Your task to perform on an android device: What's on my calendar tomorrow? Image 0: 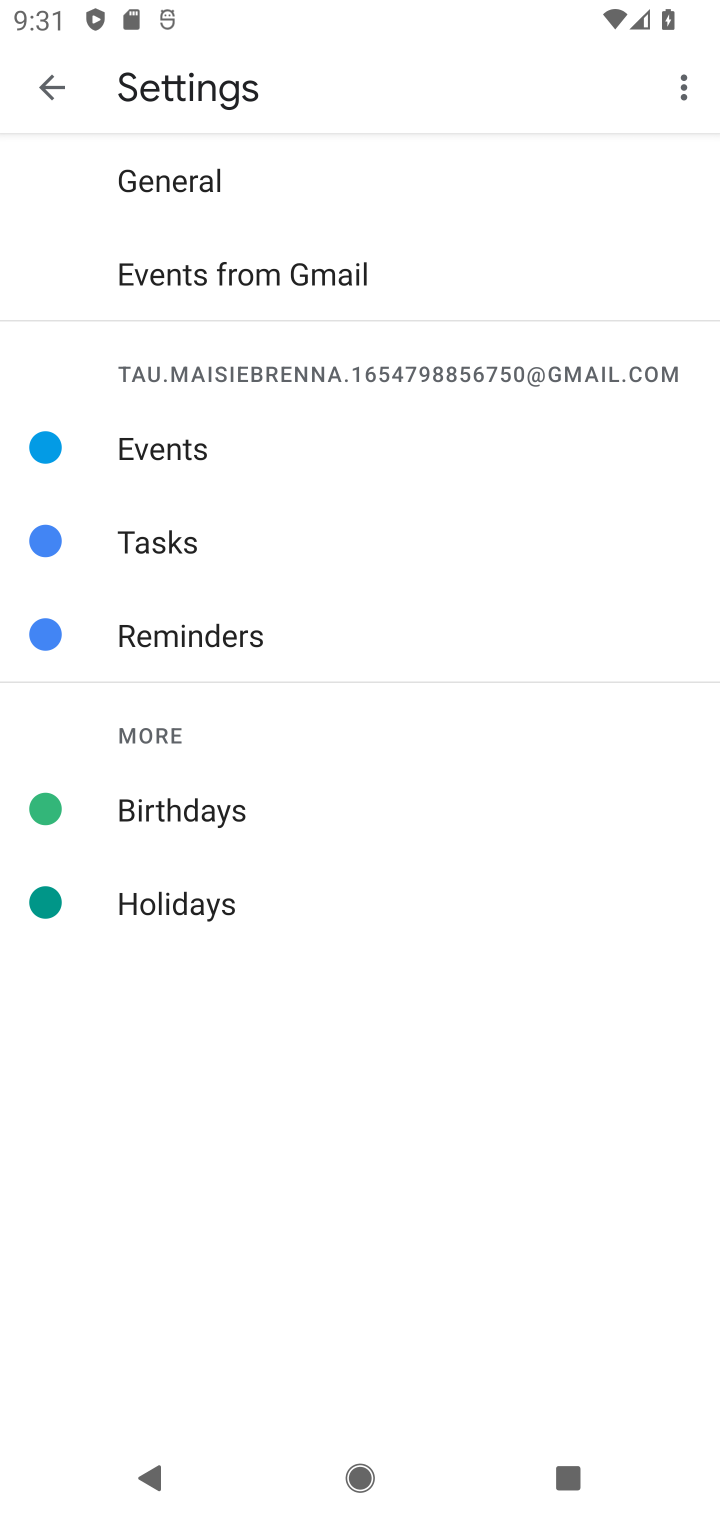
Step 0: press home button
Your task to perform on an android device: What's on my calendar tomorrow? Image 1: 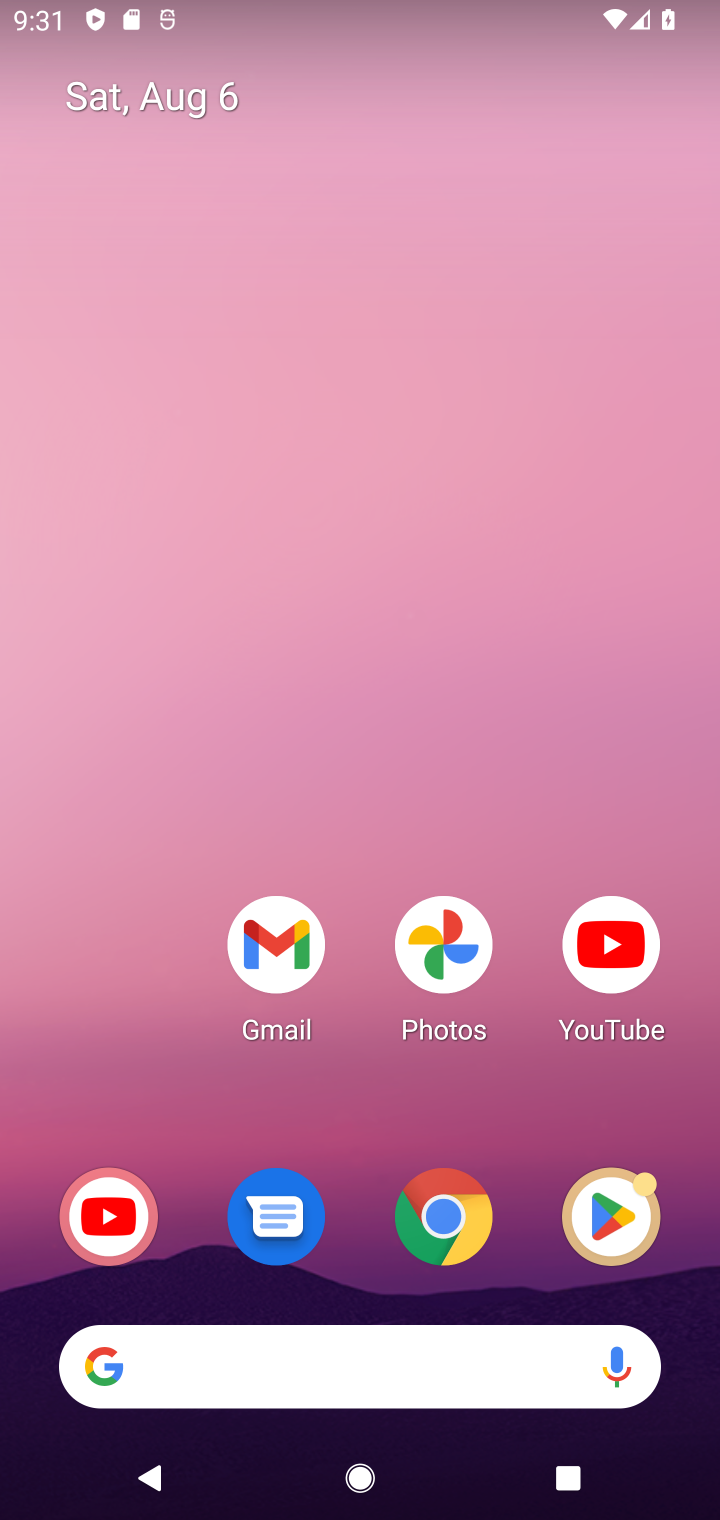
Step 1: drag from (291, 898) to (280, 424)
Your task to perform on an android device: What's on my calendar tomorrow? Image 2: 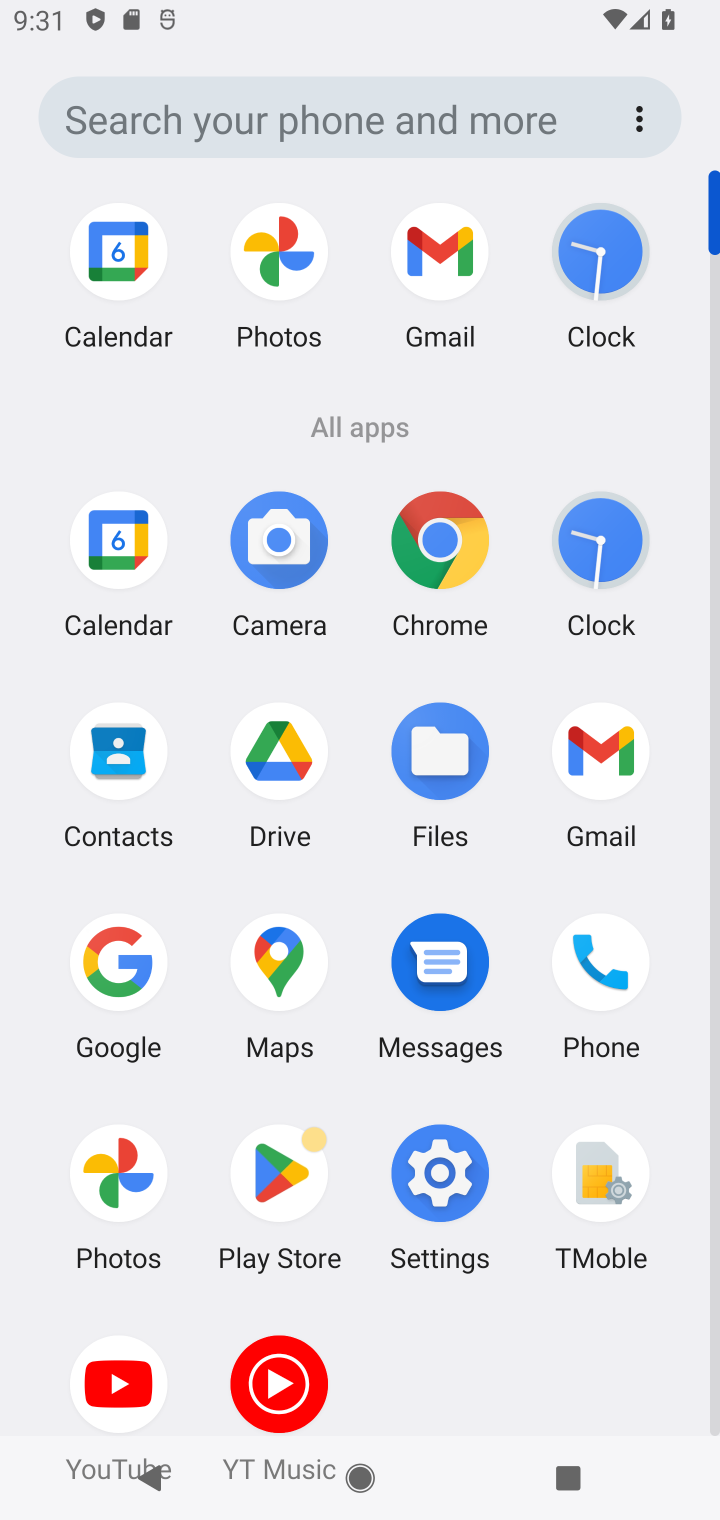
Step 2: click (93, 558)
Your task to perform on an android device: What's on my calendar tomorrow? Image 3: 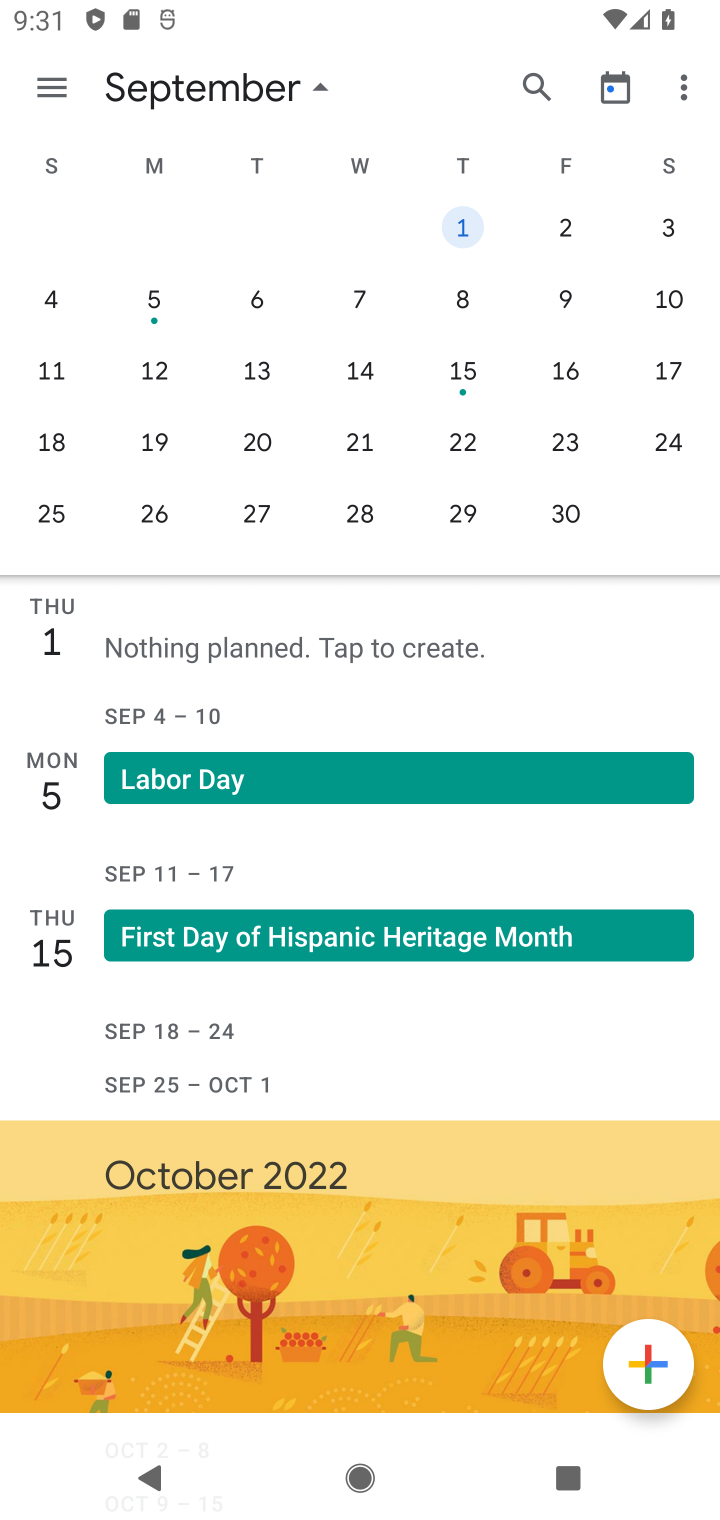
Step 3: drag from (68, 224) to (718, 388)
Your task to perform on an android device: What's on my calendar tomorrow? Image 4: 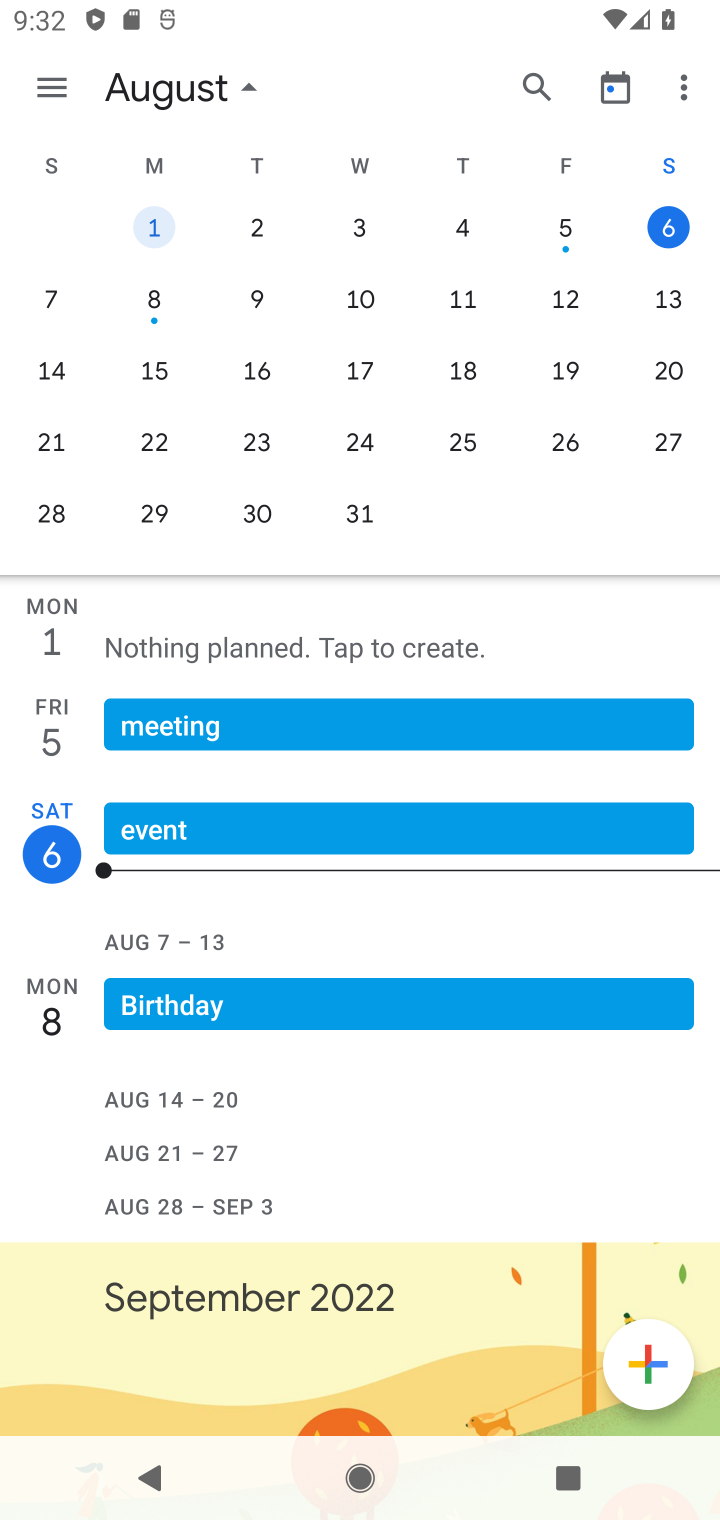
Step 4: drag from (54, 406) to (599, 405)
Your task to perform on an android device: What's on my calendar tomorrow? Image 5: 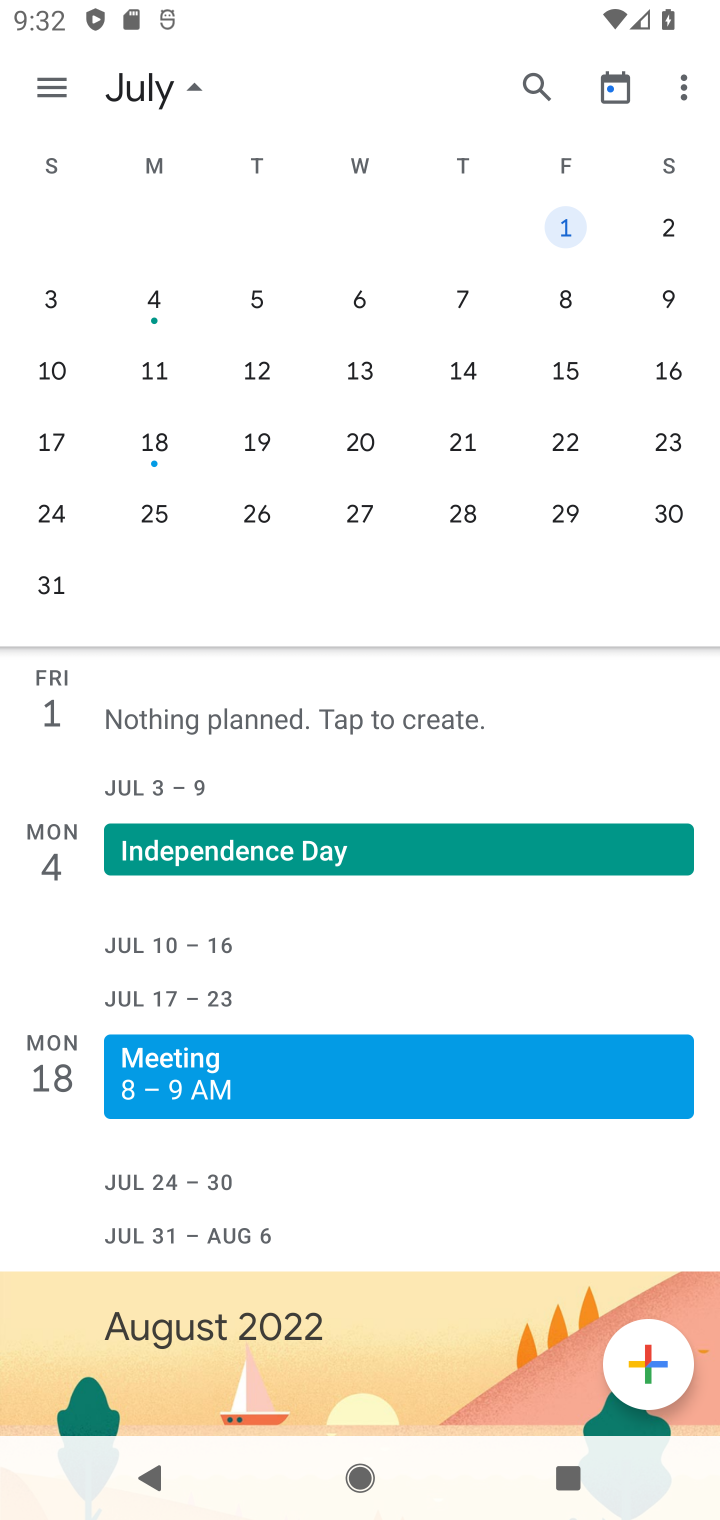
Step 5: drag from (710, 380) to (48, 436)
Your task to perform on an android device: What's on my calendar tomorrow? Image 6: 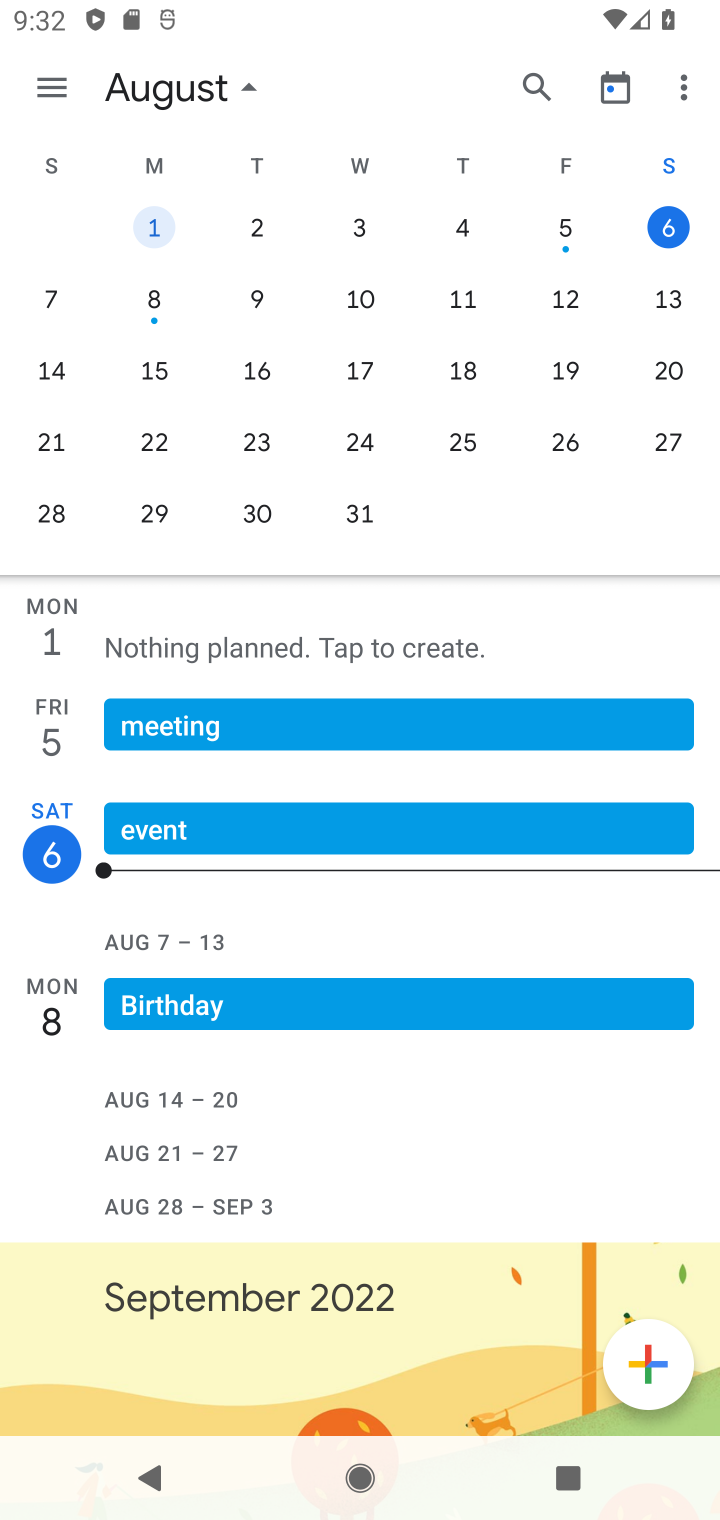
Step 6: click (39, 296)
Your task to perform on an android device: What's on my calendar tomorrow? Image 7: 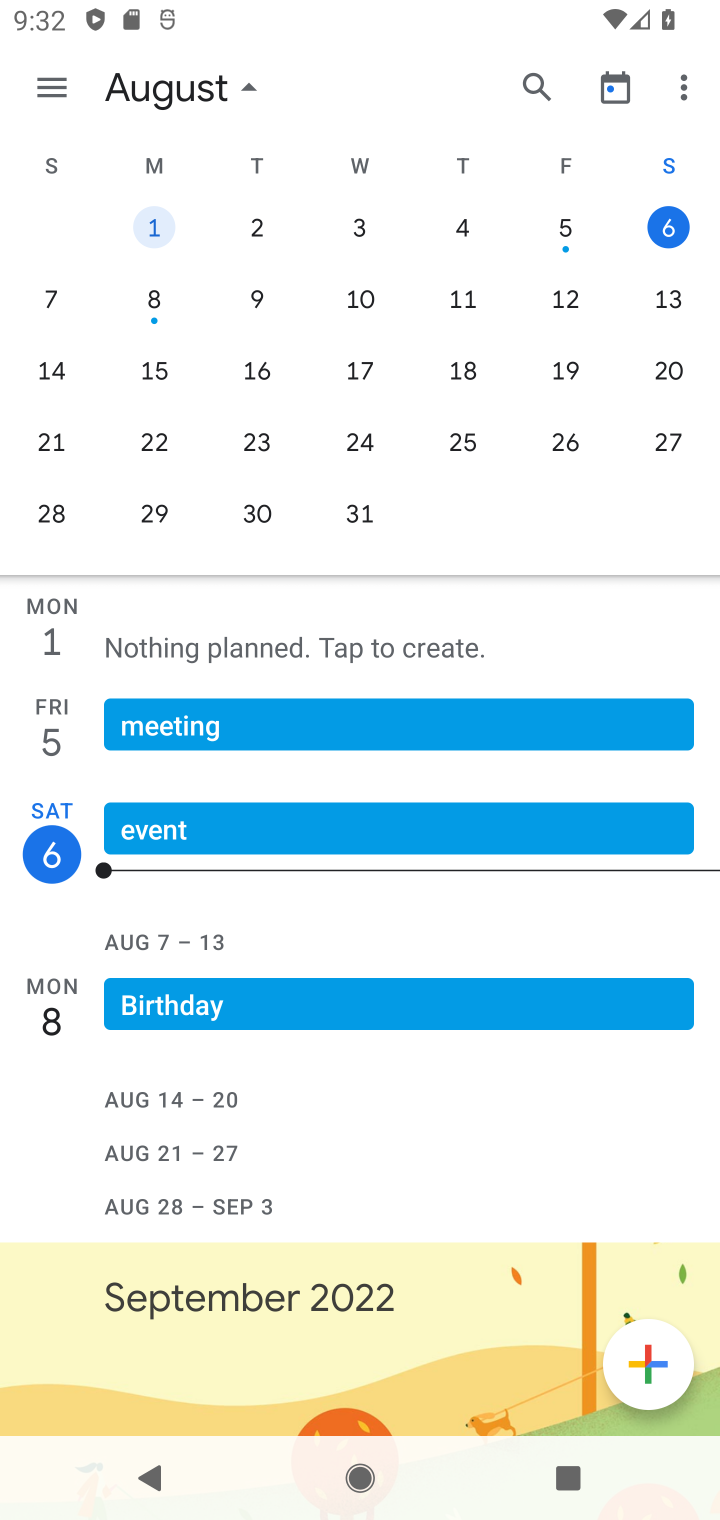
Step 7: click (54, 305)
Your task to perform on an android device: What's on my calendar tomorrow? Image 8: 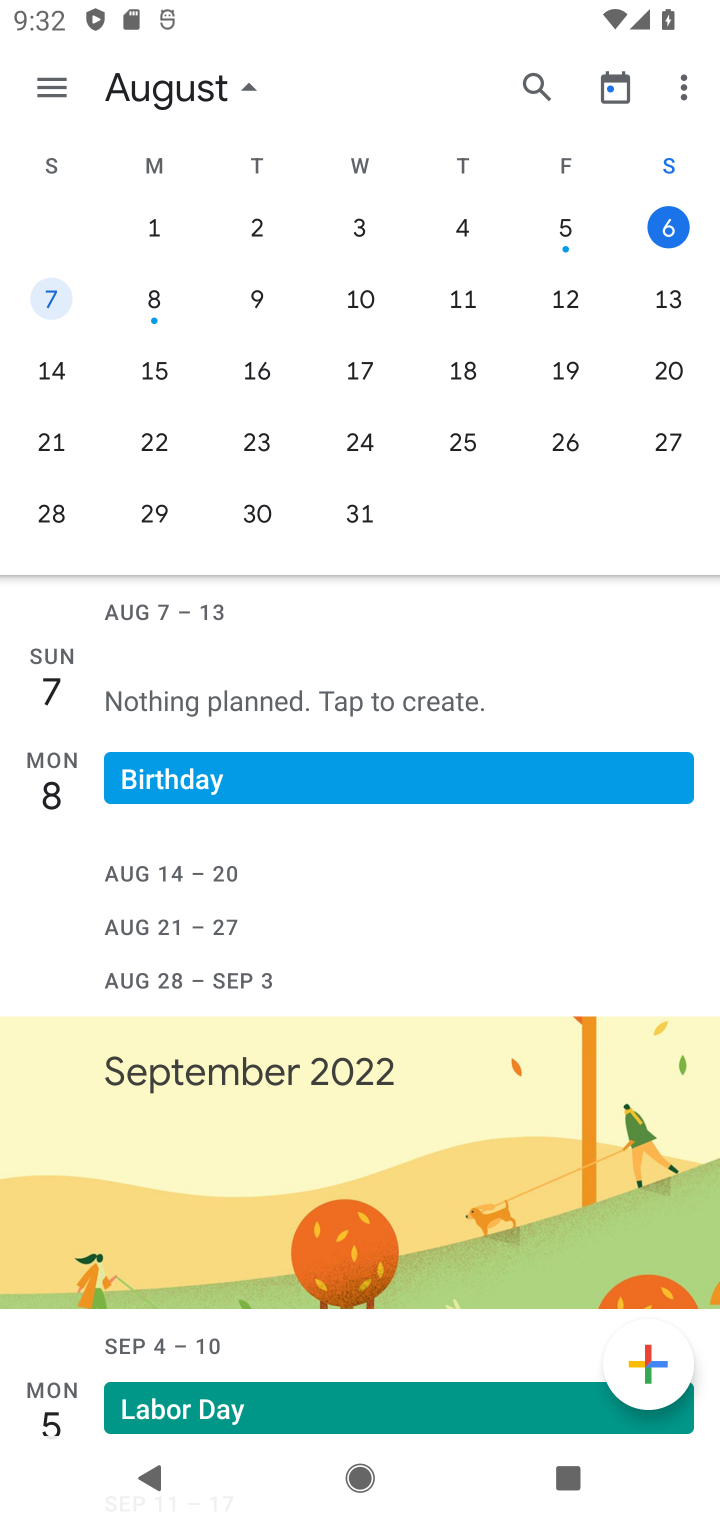
Step 8: task complete